Your task to perform on an android device: Open Google Maps and go to "Timeline" Image 0: 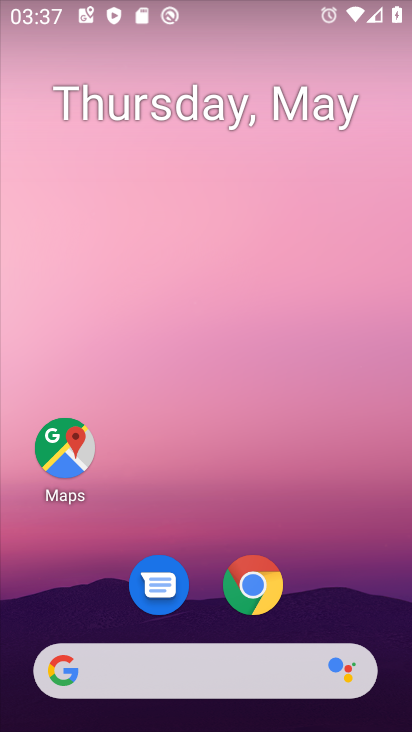
Step 0: click (212, 524)
Your task to perform on an android device: Open Google Maps and go to "Timeline" Image 1: 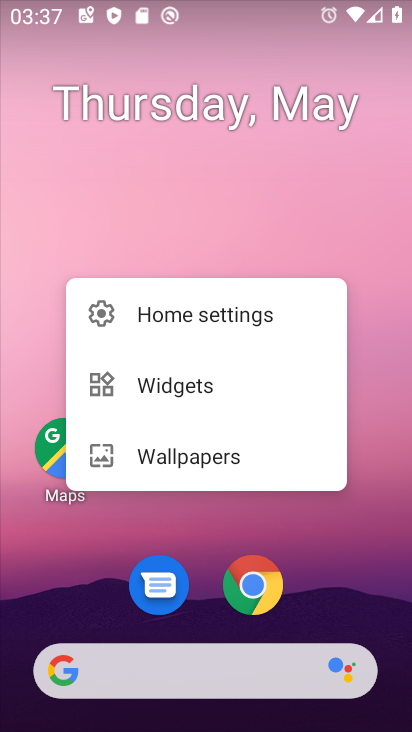
Step 1: click (44, 443)
Your task to perform on an android device: Open Google Maps and go to "Timeline" Image 2: 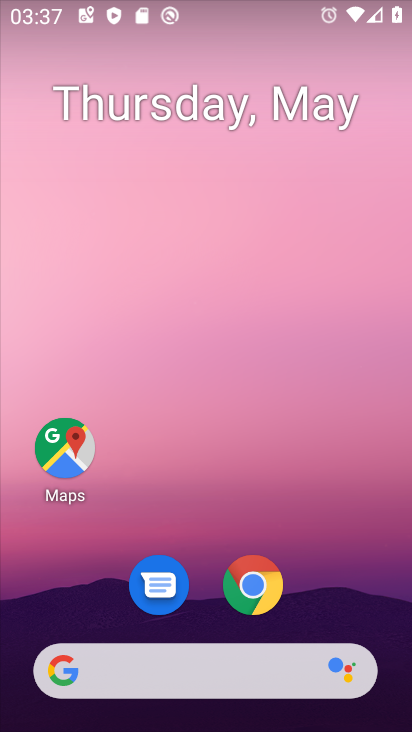
Step 2: click (66, 438)
Your task to perform on an android device: Open Google Maps and go to "Timeline" Image 3: 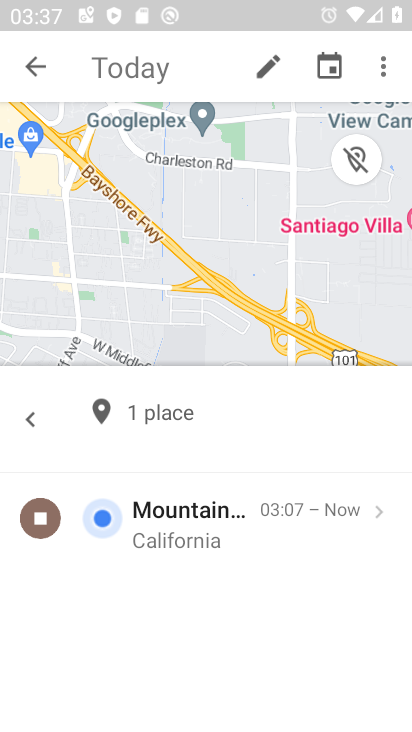
Step 3: click (36, 64)
Your task to perform on an android device: Open Google Maps and go to "Timeline" Image 4: 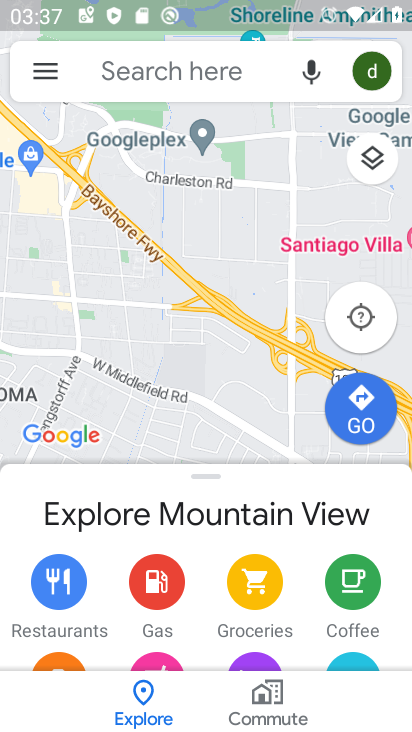
Step 4: click (41, 61)
Your task to perform on an android device: Open Google Maps and go to "Timeline" Image 5: 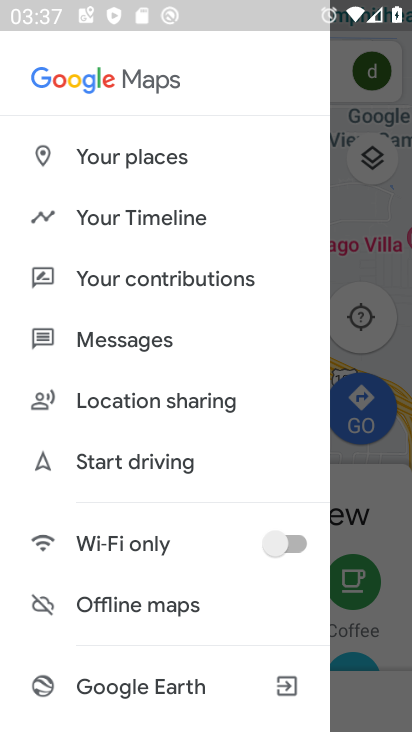
Step 5: click (129, 211)
Your task to perform on an android device: Open Google Maps and go to "Timeline" Image 6: 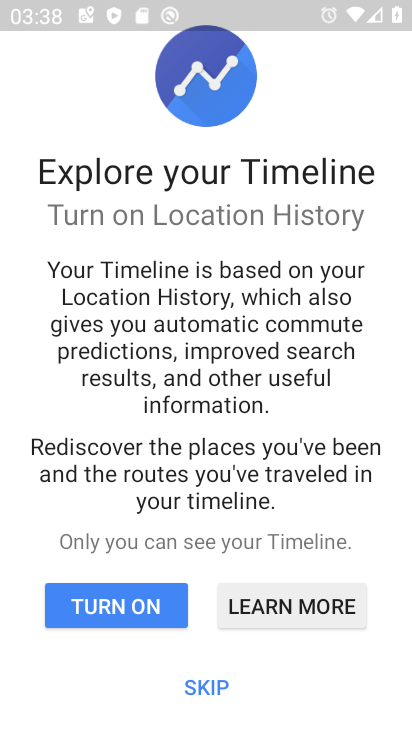
Step 6: click (218, 682)
Your task to perform on an android device: Open Google Maps and go to "Timeline" Image 7: 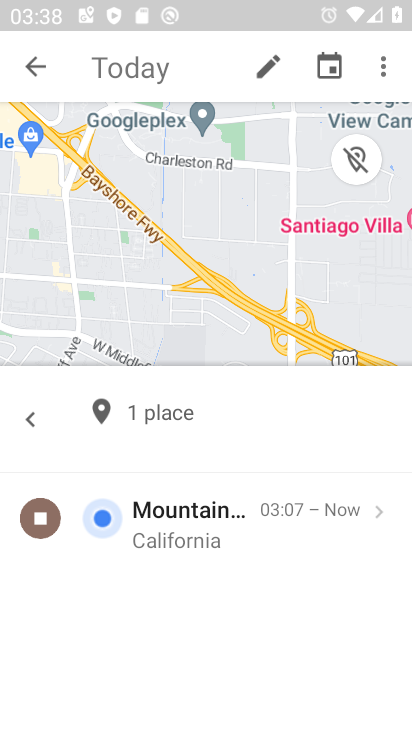
Step 7: task complete